Your task to perform on an android device: open app "YouTube Kids" (install if not already installed) and go to login screen Image 0: 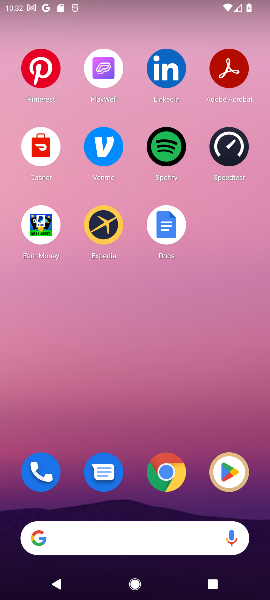
Step 0: click (232, 478)
Your task to perform on an android device: open app "YouTube Kids" (install if not already installed) and go to login screen Image 1: 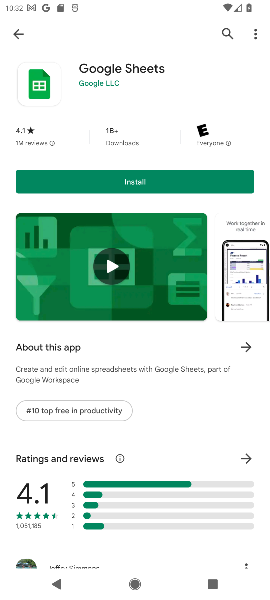
Step 1: click (231, 35)
Your task to perform on an android device: open app "YouTube Kids" (install if not already installed) and go to login screen Image 2: 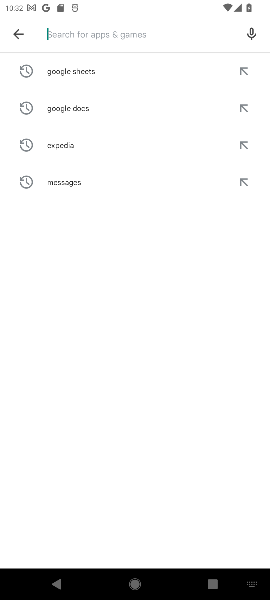
Step 2: type "youtube kids"
Your task to perform on an android device: open app "YouTube Kids" (install if not already installed) and go to login screen Image 3: 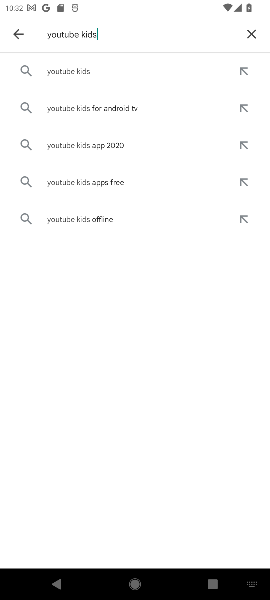
Step 3: click (78, 67)
Your task to perform on an android device: open app "YouTube Kids" (install if not already installed) and go to login screen Image 4: 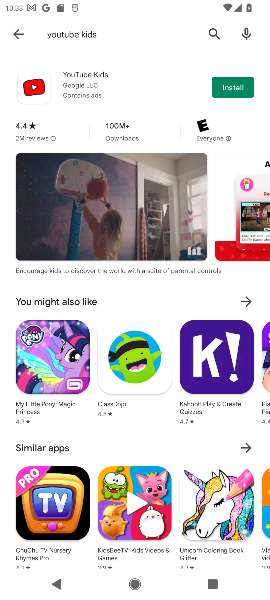
Step 4: click (233, 86)
Your task to perform on an android device: open app "YouTube Kids" (install if not already installed) and go to login screen Image 5: 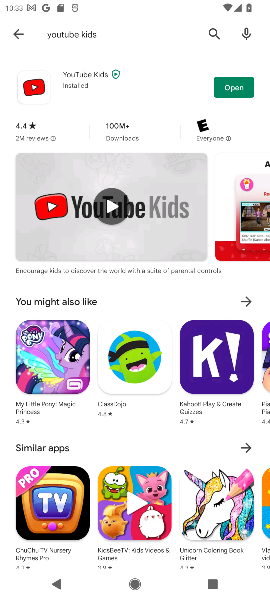
Step 5: click (223, 96)
Your task to perform on an android device: open app "YouTube Kids" (install if not already installed) and go to login screen Image 6: 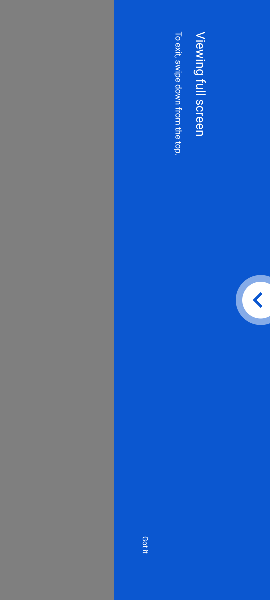
Step 6: click (143, 550)
Your task to perform on an android device: open app "YouTube Kids" (install if not already installed) and go to login screen Image 7: 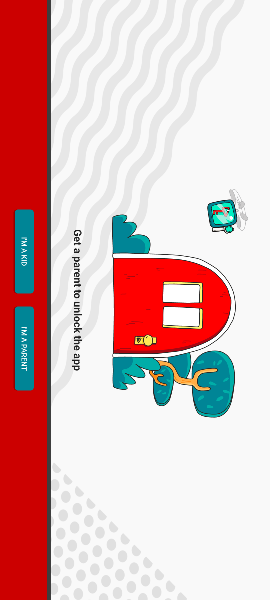
Step 7: task complete